Your task to perform on an android device: Go to wifi settings Image 0: 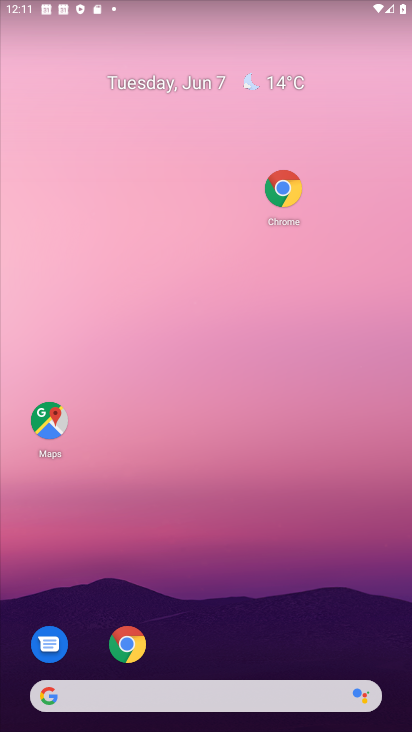
Step 0: drag from (275, 577) to (253, 196)
Your task to perform on an android device: Go to wifi settings Image 1: 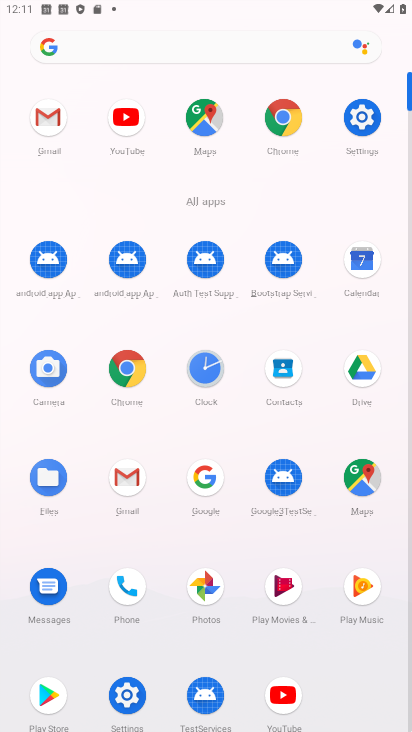
Step 1: click (368, 125)
Your task to perform on an android device: Go to wifi settings Image 2: 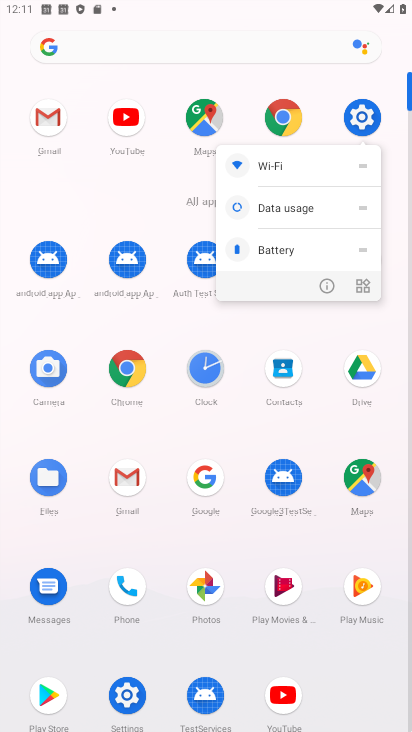
Step 2: click (372, 110)
Your task to perform on an android device: Go to wifi settings Image 3: 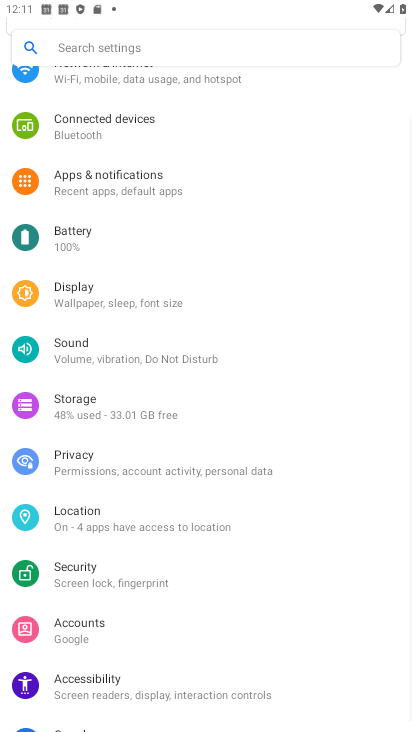
Step 3: drag from (182, 136) to (174, 552)
Your task to perform on an android device: Go to wifi settings Image 4: 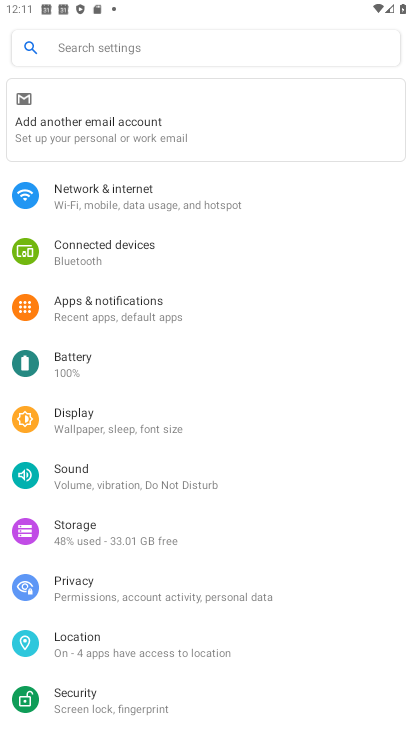
Step 4: click (133, 190)
Your task to perform on an android device: Go to wifi settings Image 5: 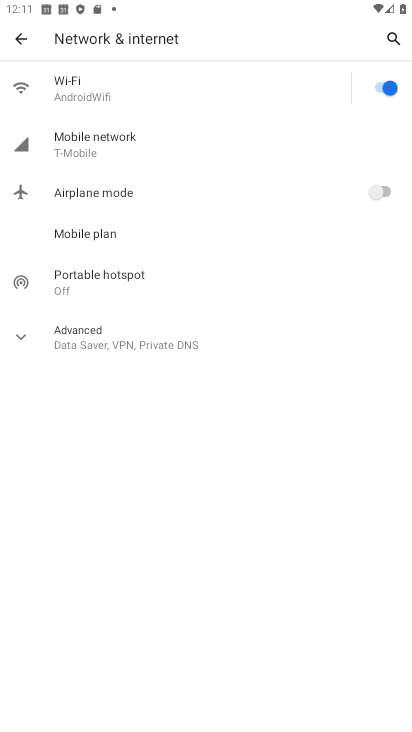
Step 5: click (233, 93)
Your task to perform on an android device: Go to wifi settings Image 6: 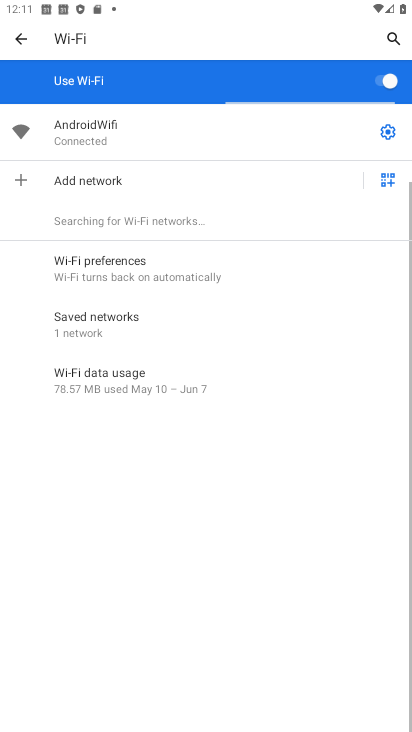
Step 6: click (388, 132)
Your task to perform on an android device: Go to wifi settings Image 7: 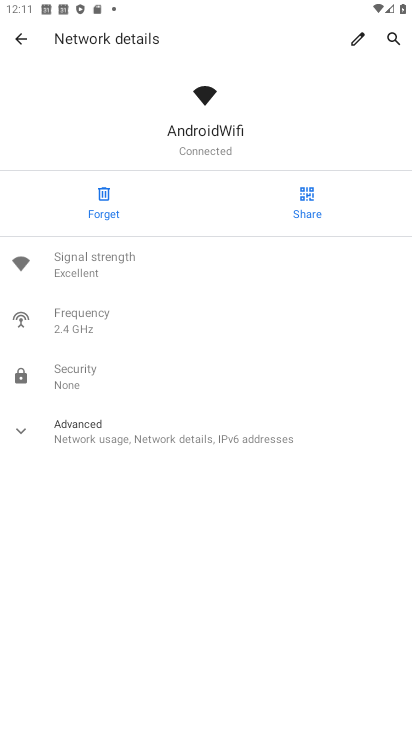
Step 7: task complete